Your task to perform on an android device: turn off data saver in the chrome app Image 0: 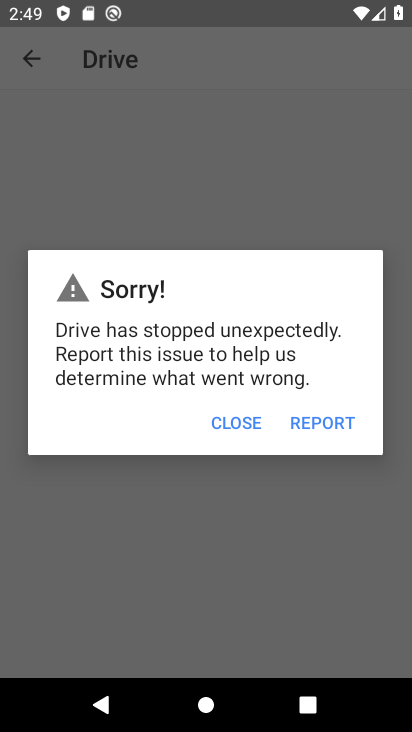
Step 0: click (138, 555)
Your task to perform on an android device: turn off data saver in the chrome app Image 1: 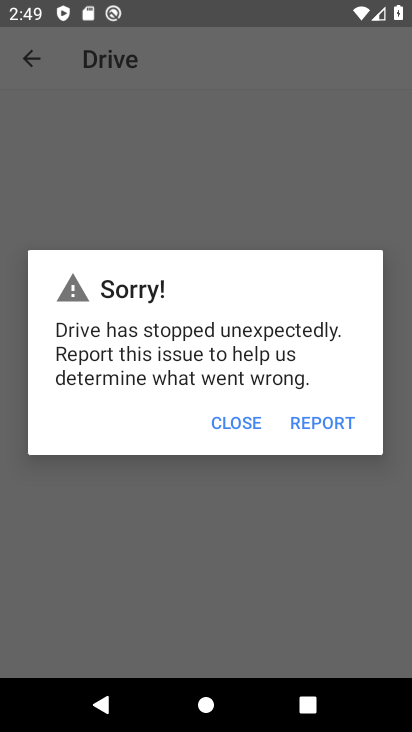
Step 1: press home button
Your task to perform on an android device: turn off data saver in the chrome app Image 2: 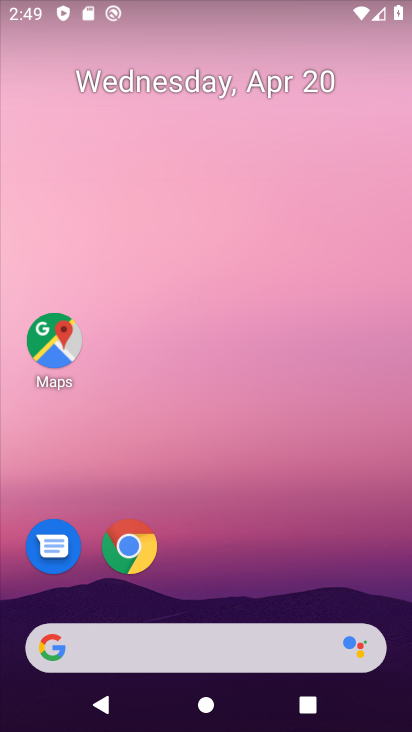
Step 2: click (141, 554)
Your task to perform on an android device: turn off data saver in the chrome app Image 3: 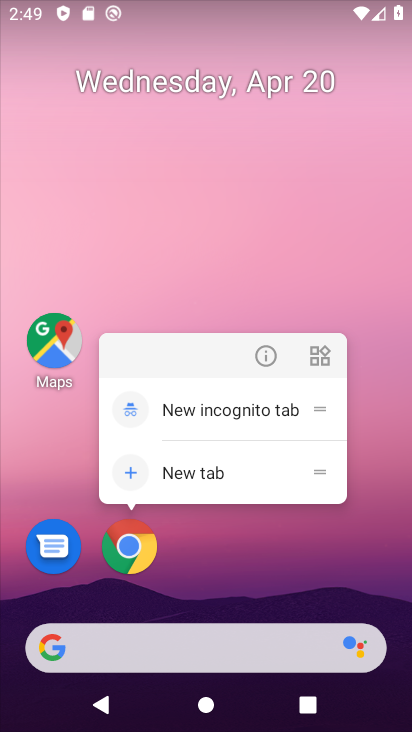
Step 3: click (132, 555)
Your task to perform on an android device: turn off data saver in the chrome app Image 4: 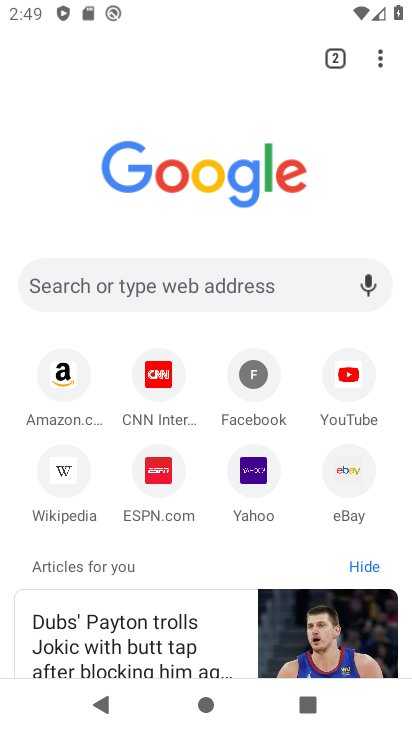
Step 4: click (382, 60)
Your task to perform on an android device: turn off data saver in the chrome app Image 5: 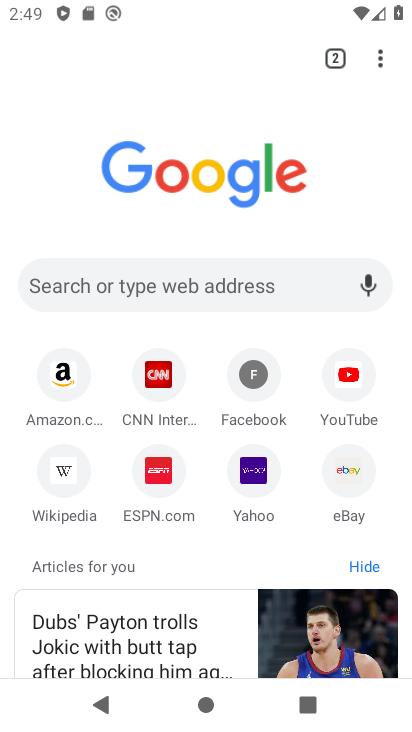
Step 5: drag from (376, 58) to (203, 484)
Your task to perform on an android device: turn off data saver in the chrome app Image 6: 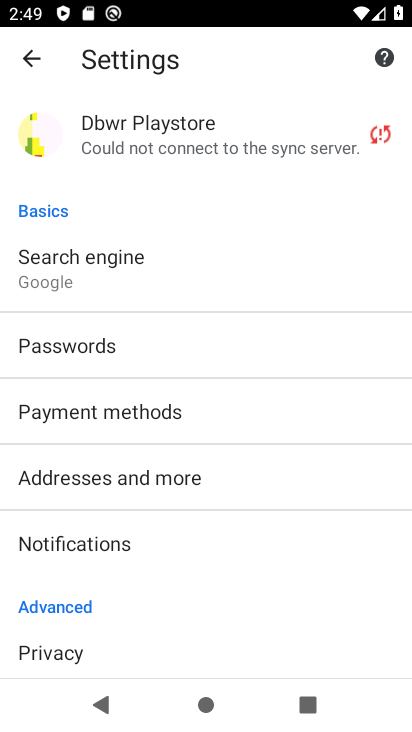
Step 6: drag from (138, 635) to (146, 244)
Your task to perform on an android device: turn off data saver in the chrome app Image 7: 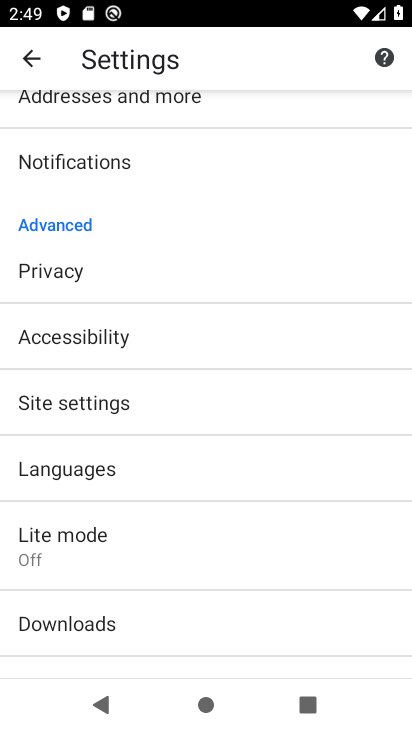
Step 7: click (92, 552)
Your task to perform on an android device: turn off data saver in the chrome app Image 8: 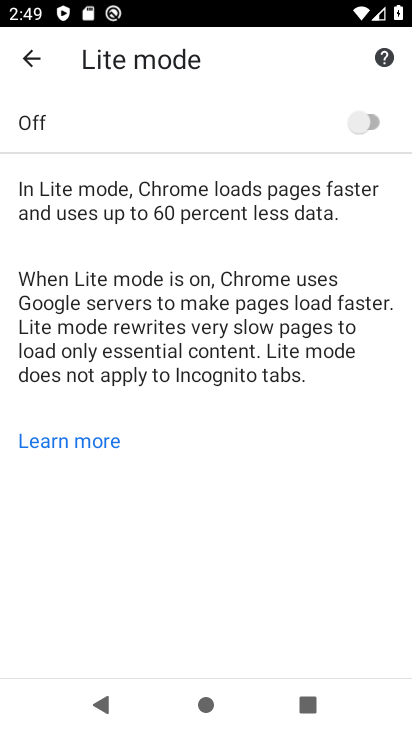
Step 8: task complete